Your task to perform on an android device: Open display settings Image 0: 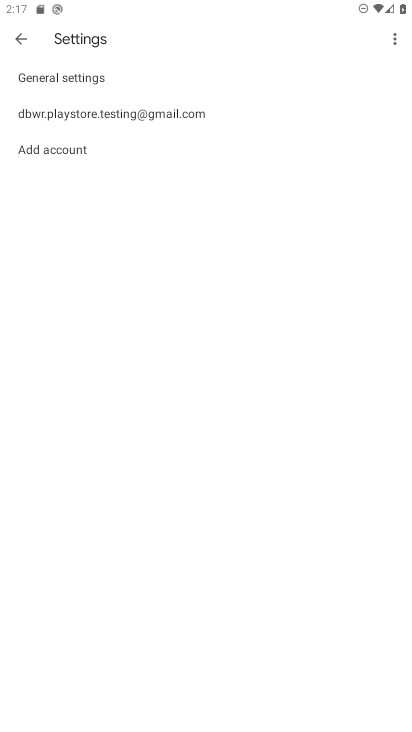
Step 0: press home button
Your task to perform on an android device: Open display settings Image 1: 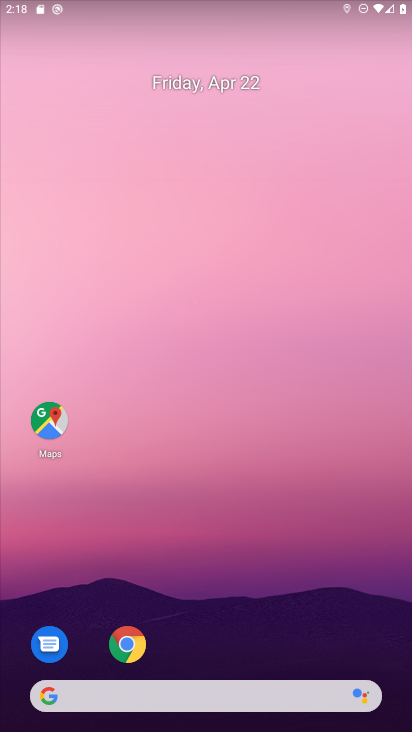
Step 1: drag from (254, 642) to (204, 79)
Your task to perform on an android device: Open display settings Image 2: 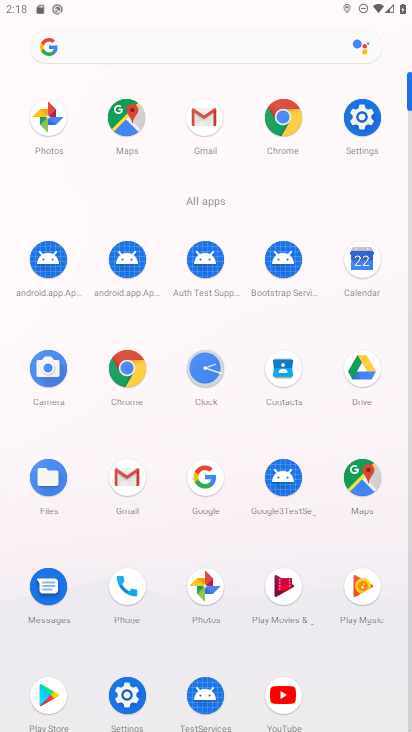
Step 2: click (132, 701)
Your task to perform on an android device: Open display settings Image 3: 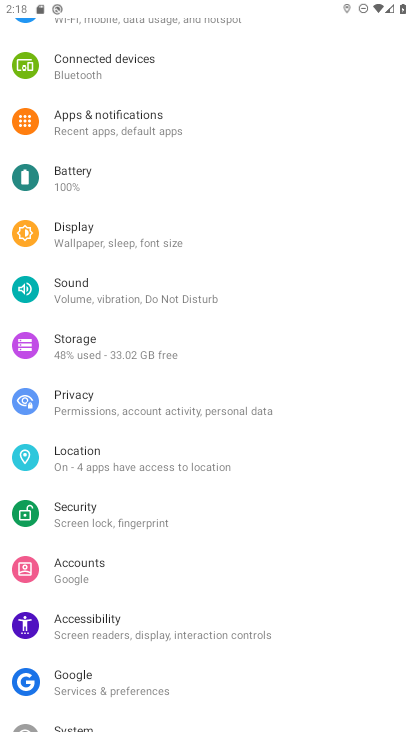
Step 3: click (114, 232)
Your task to perform on an android device: Open display settings Image 4: 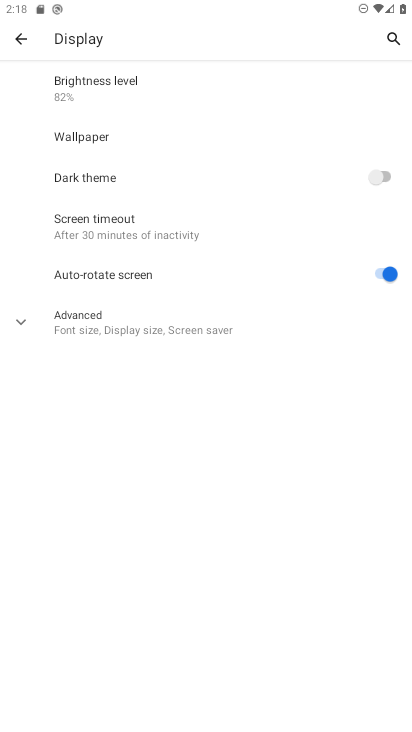
Step 4: task complete